Your task to perform on an android device: open sync settings in chrome Image 0: 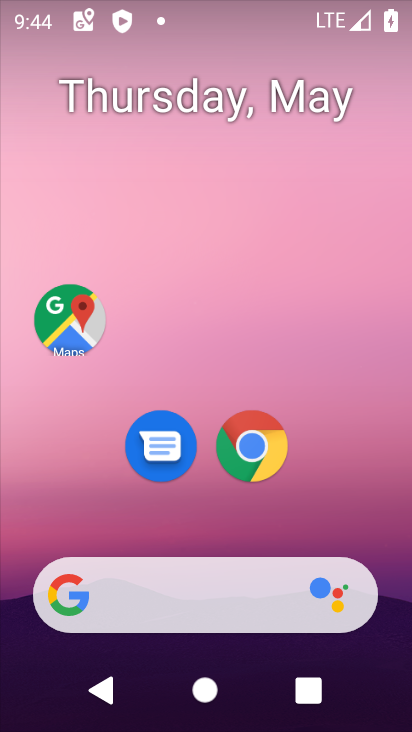
Step 0: click (252, 446)
Your task to perform on an android device: open sync settings in chrome Image 1: 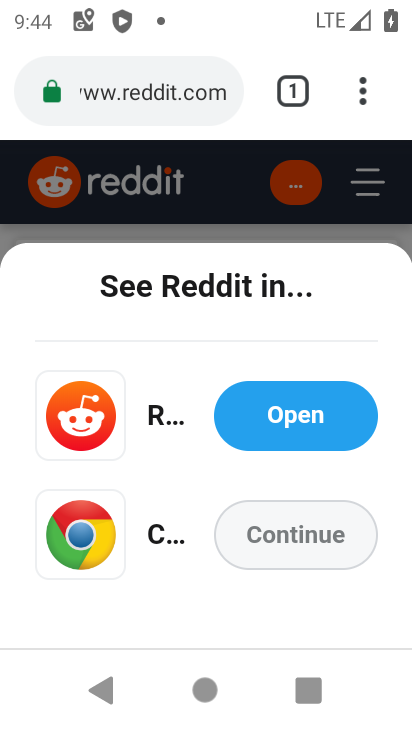
Step 1: click (357, 95)
Your task to perform on an android device: open sync settings in chrome Image 2: 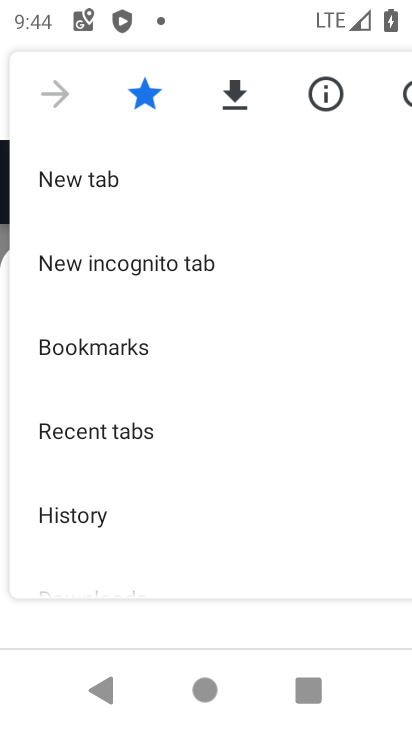
Step 2: drag from (203, 539) to (239, 26)
Your task to perform on an android device: open sync settings in chrome Image 3: 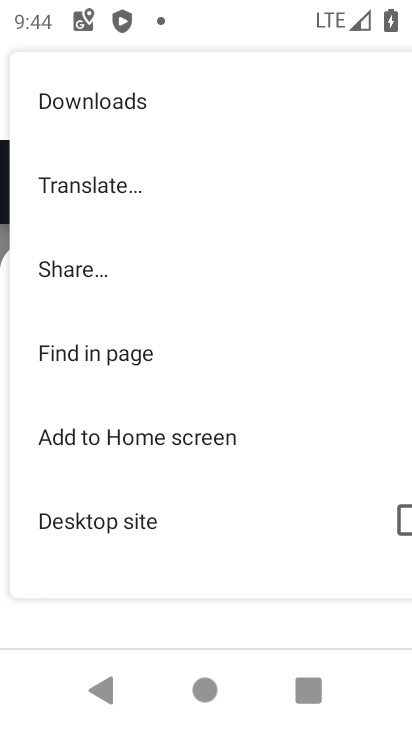
Step 3: drag from (243, 521) to (271, 33)
Your task to perform on an android device: open sync settings in chrome Image 4: 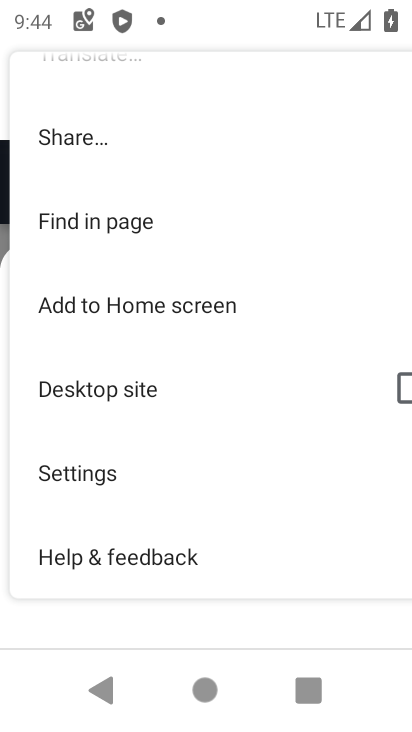
Step 4: click (78, 476)
Your task to perform on an android device: open sync settings in chrome Image 5: 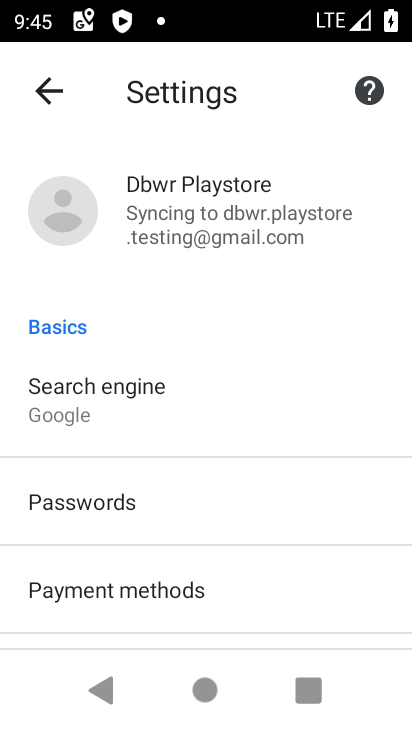
Step 5: click (170, 213)
Your task to perform on an android device: open sync settings in chrome Image 6: 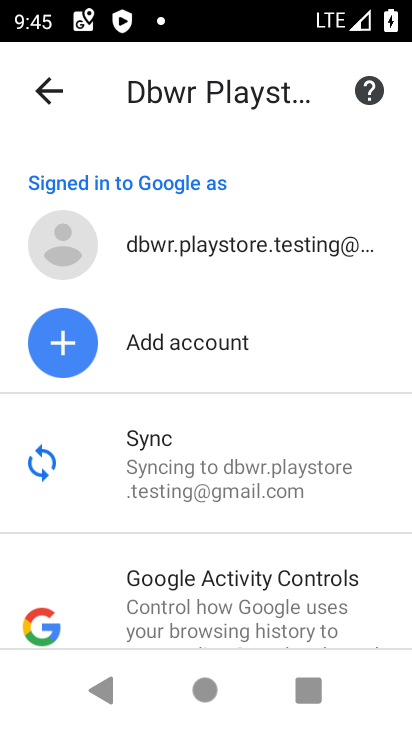
Step 6: click (132, 453)
Your task to perform on an android device: open sync settings in chrome Image 7: 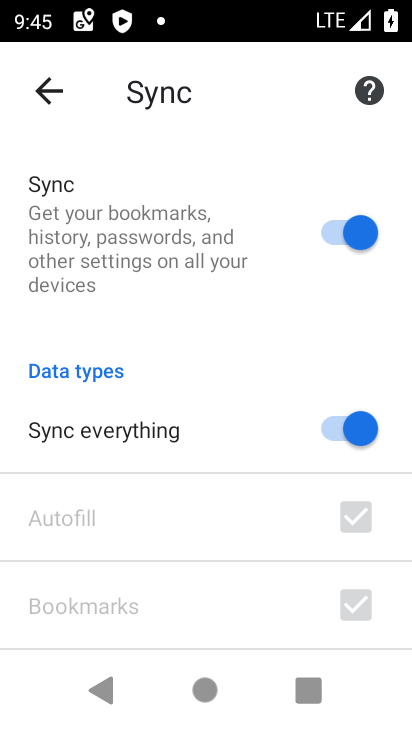
Step 7: task complete